Your task to perform on an android device: Open calendar and show me the fourth week of next month Image 0: 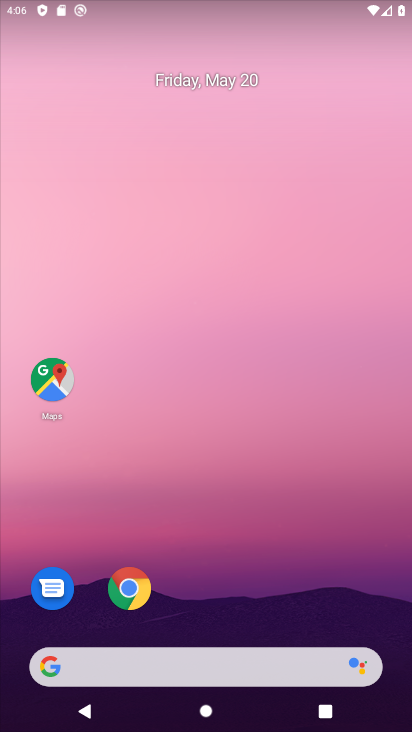
Step 0: drag from (249, 619) to (264, 130)
Your task to perform on an android device: Open calendar and show me the fourth week of next month Image 1: 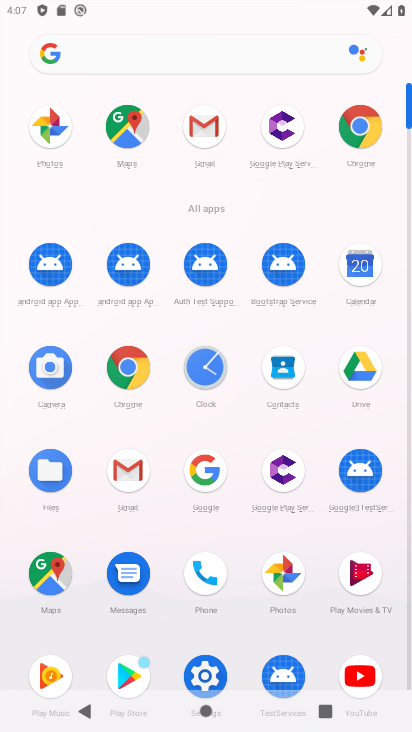
Step 1: drag from (241, 235) to (256, 198)
Your task to perform on an android device: Open calendar and show me the fourth week of next month Image 2: 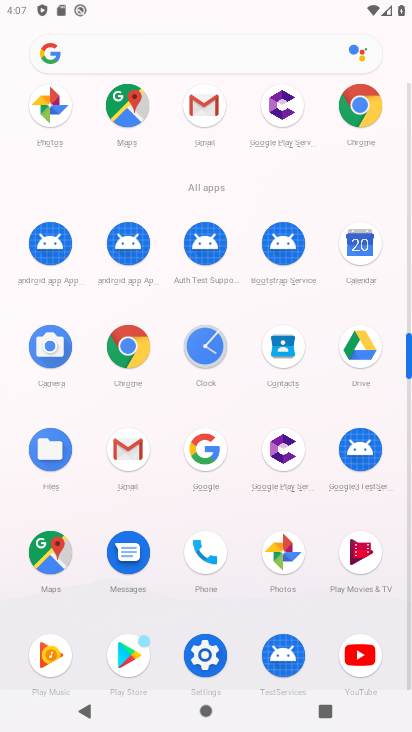
Step 2: click (348, 244)
Your task to perform on an android device: Open calendar and show me the fourth week of next month Image 3: 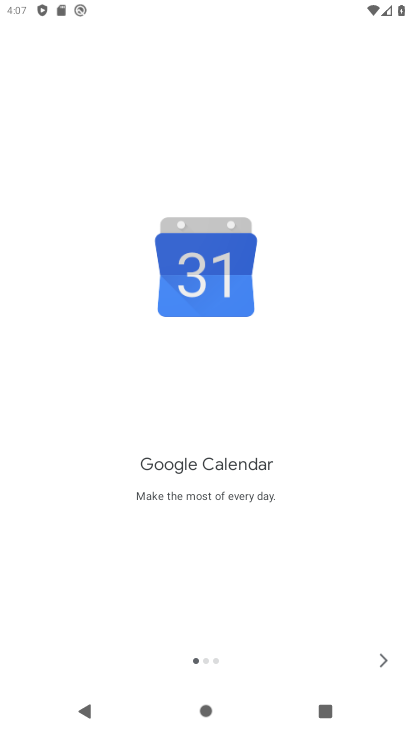
Step 3: click (379, 658)
Your task to perform on an android device: Open calendar and show me the fourth week of next month Image 4: 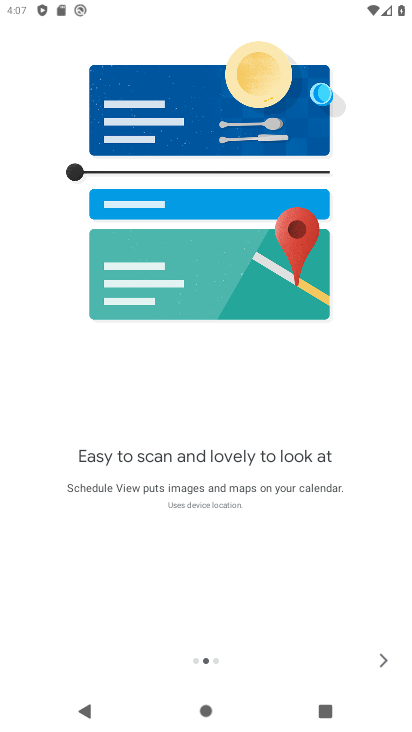
Step 4: click (379, 658)
Your task to perform on an android device: Open calendar and show me the fourth week of next month Image 5: 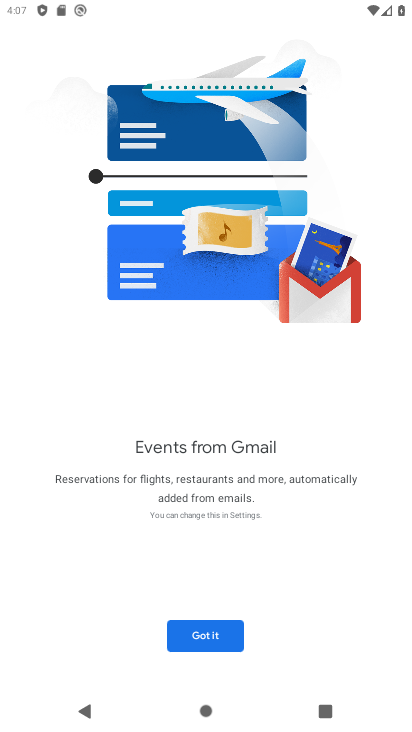
Step 5: click (206, 630)
Your task to perform on an android device: Open calendar and show me the fourth week of next month Image 6: 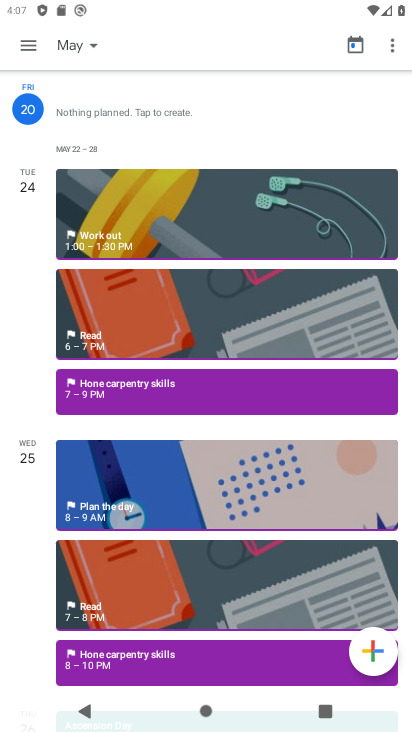
Step 6: click (62, 42)
Your task to perform on an android device: Open calendar and show me the fourth week of next month Image 7: 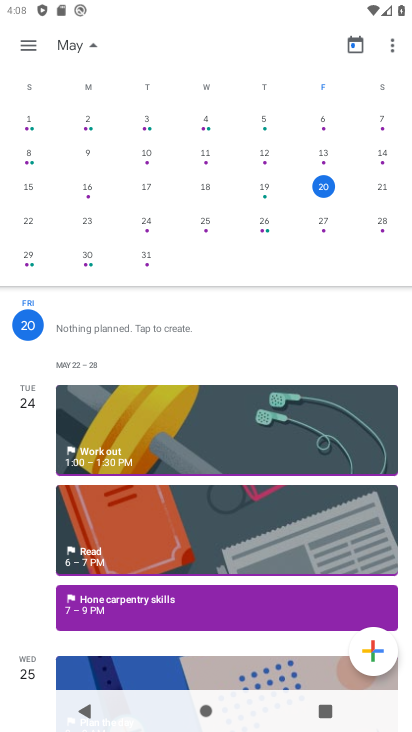
Step 7: drag from (364, 149) to (57, 156)
Your task to perform on an android device: Open calendar and show me the fourth week of next month Image 8: 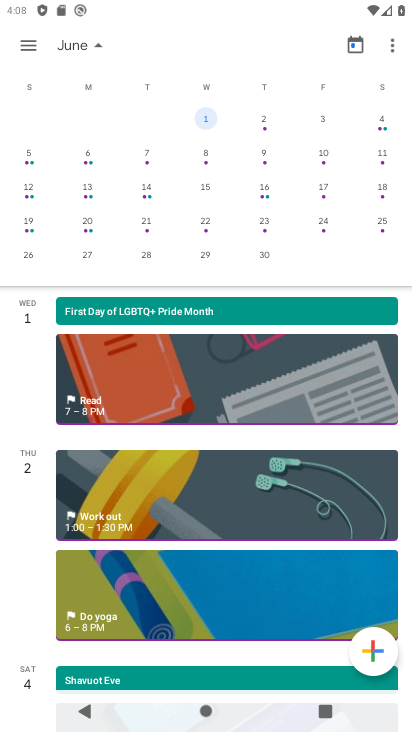
Step 8: click (145, 254)
Your task to perform on an android device: Open calendar and show me the fourth week of next month Image 9: 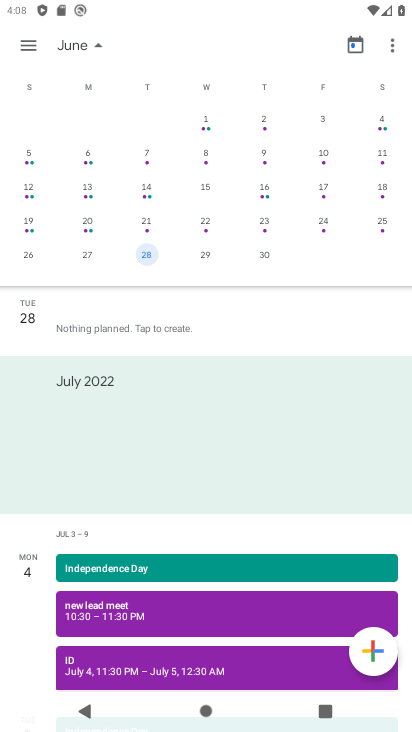
Step 9: task complete